Your task to perform on an android device: Go to Google Image 0: 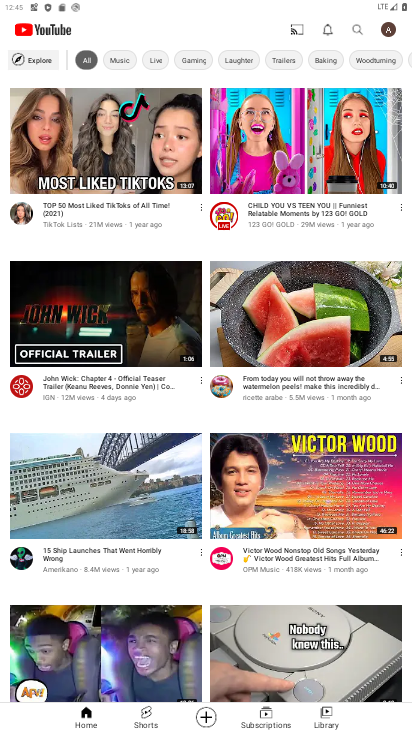
Step 0: press home button
Your task to perform on an android device: Go to Google Image 1: 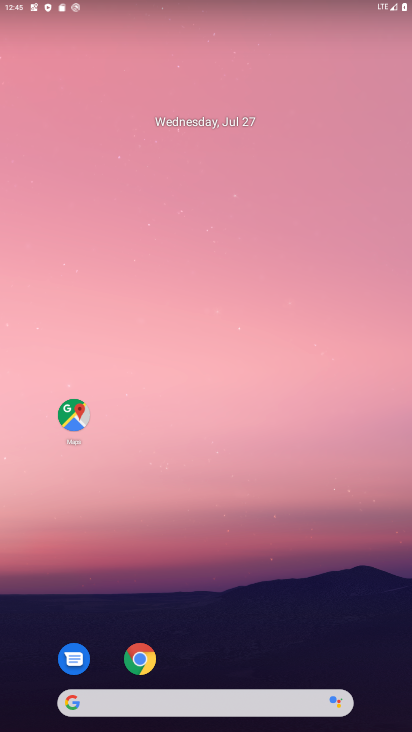
Step 1: drag from (227, 612) to (237, 301)
Your task to perform on an android device: Go to Google Image 2: 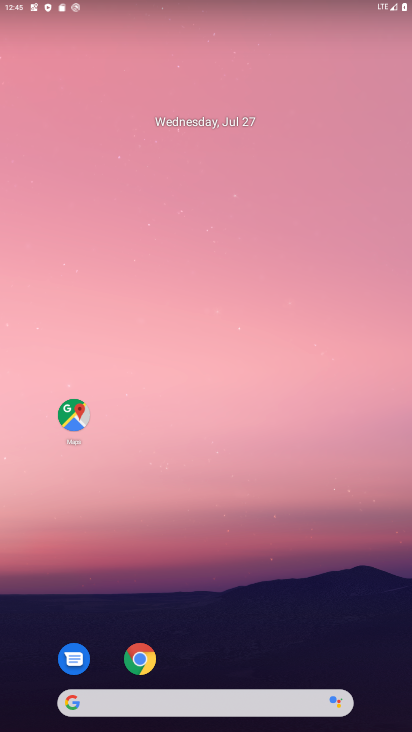
Step 2: drag from (216, 661) to (233, 216)
Your task to perform on an android device: Go to Google Image 3: 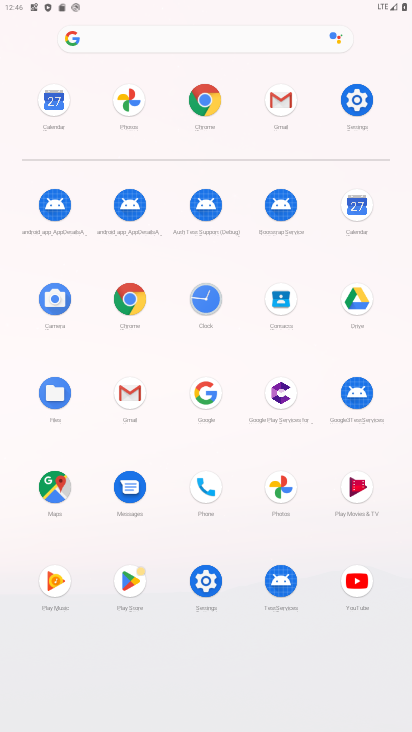
Step 3: click (212, 400)
Your task to perform on an android device: Go to Google Image 4: 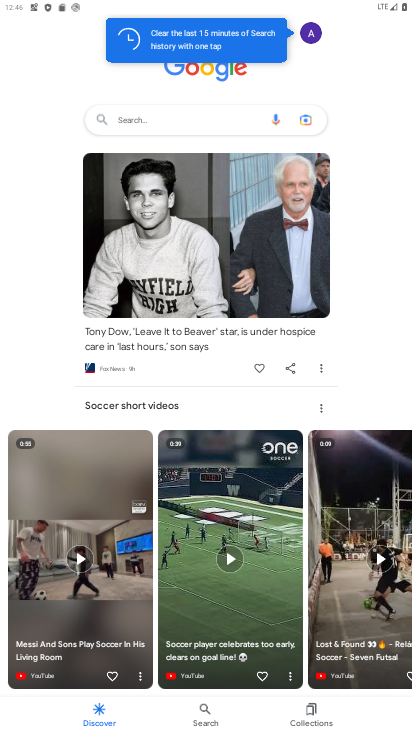
Step 4: task complete